Your task to perform on an android device: Go to Amazon Image 0: 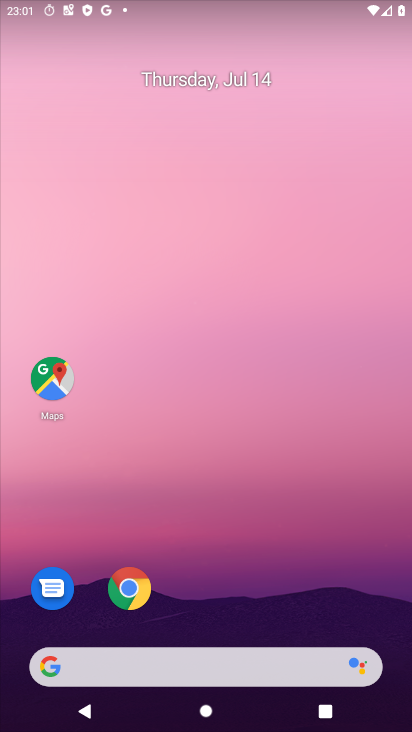
Step 0: drag from (225, 603) to (220, 99)
Your task to perform on an android device: Go to Amazon Image 1: 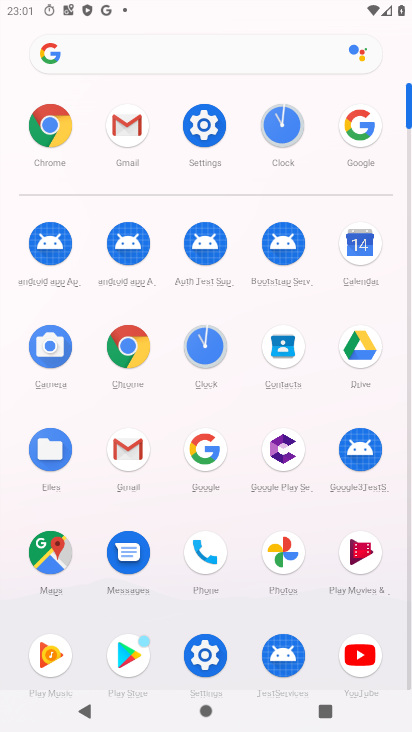
Step 1: click (127, 343)
Your task to perform on an android device: Go to Amazon Image 2: 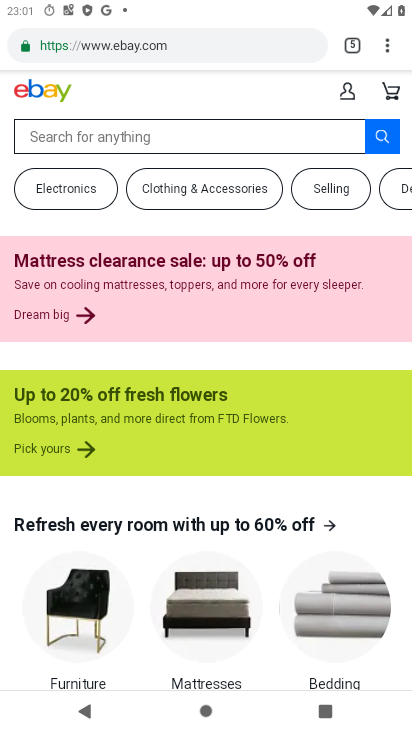
Step 2: press back button
Your task to perform on an android device: Go to Amazon Image 3: 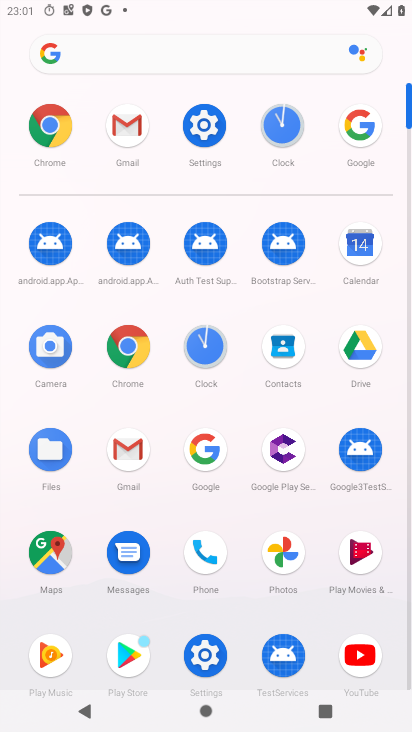
Step 3: click (127, 338)
Your task to perform on an android device: Go to Amazon Image 4: 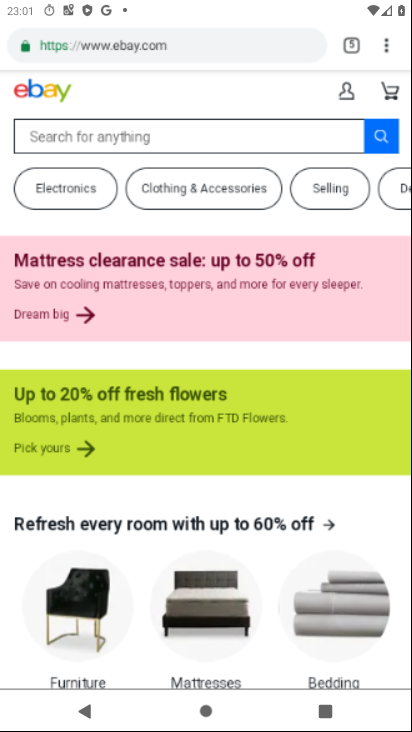
Step 4: click (348, 39)
Your task to perform on an android device: Go to Amazon Image 5: 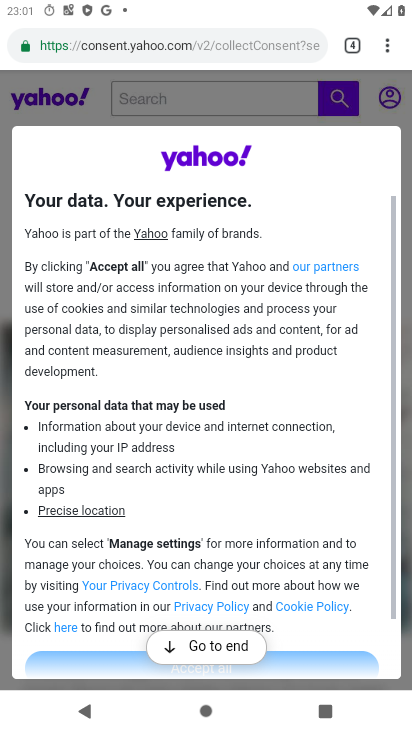
Step 5: click (354, 43)
Your task to perform on an android device: Go to Amazon Image 6: 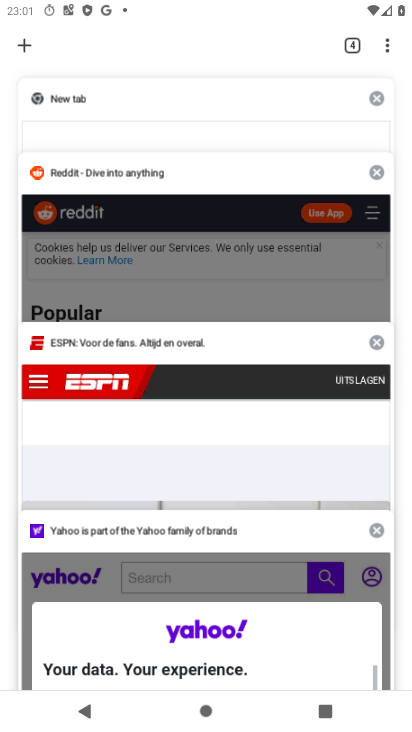
Step 6: click (27, 43)
Your task to perform on an android device: Go to Amazon Image 7: 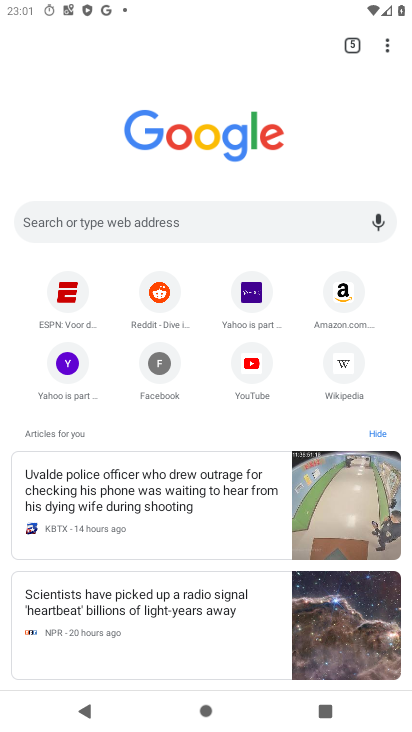
Step 7: click (347, 291)
Your task to perform on an android device: Go to Amazon Image 8: 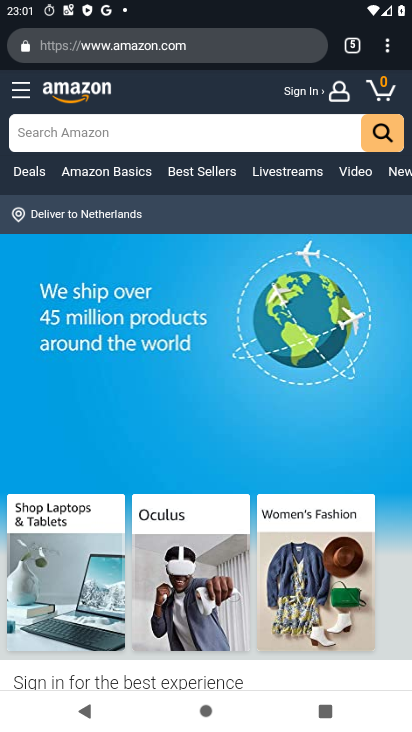
Step 8: task complete